Your task to perform on an android device: toggle sleep mode Image 0: 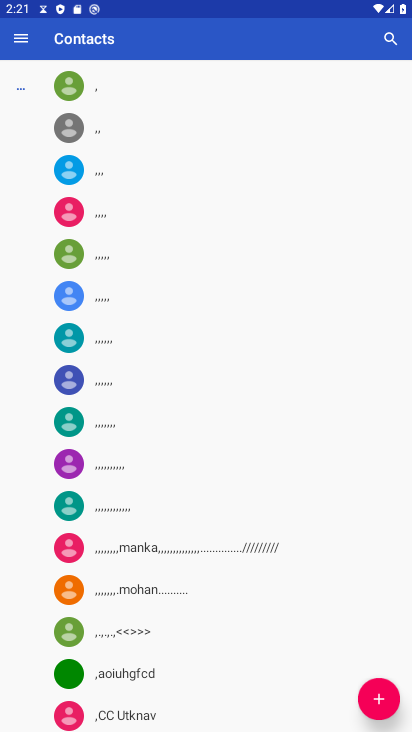
Step 0: press home button
Your task to perform on an android device: toggle sleep mode Image 1: 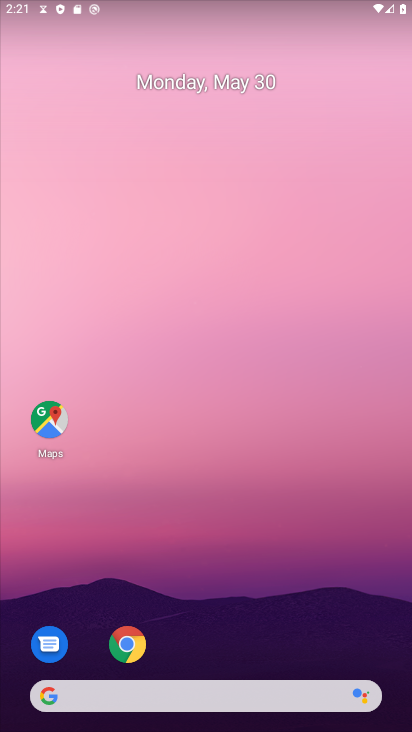
Step 1: drag from (240, 674) to (244, 250)
Your task to perform on an android device: toggle sleep mode Image 2: 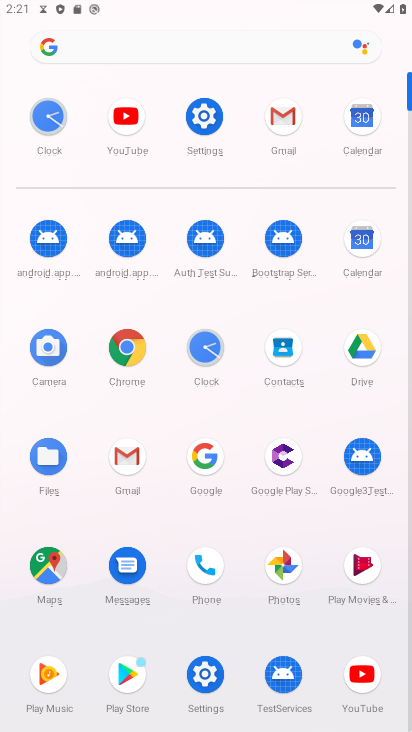
Step 2: click (201, 107)
Your task to perform on an android device: toggle sleep mode Image 3: 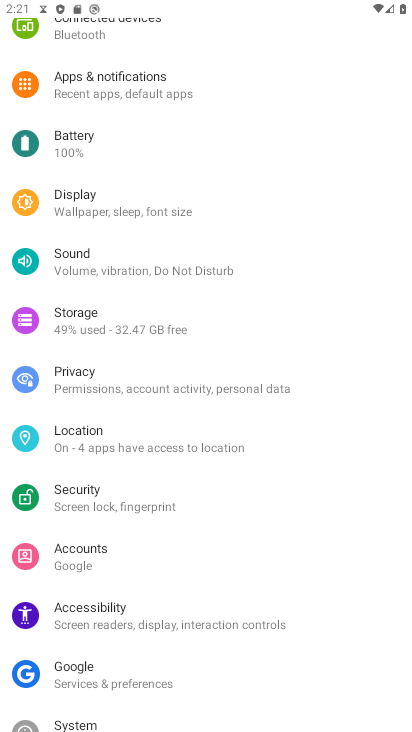
Step 3: click (108, 203)
Your task to perform on an android device: toggle sleep mode Image 4: 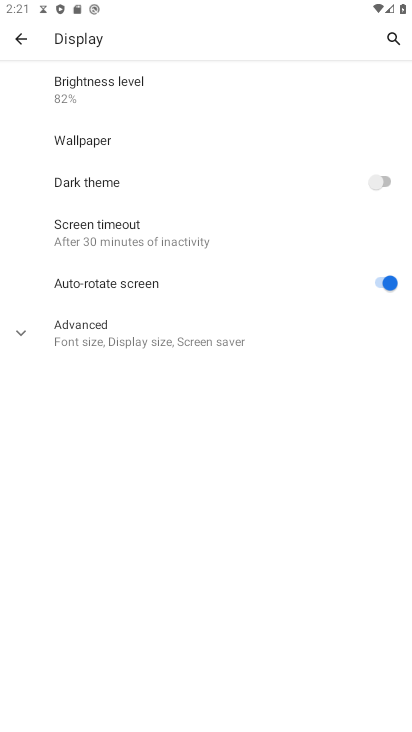
Step 4: task complete